Your task to perform on an android device: turn off sleep mode Image 0: 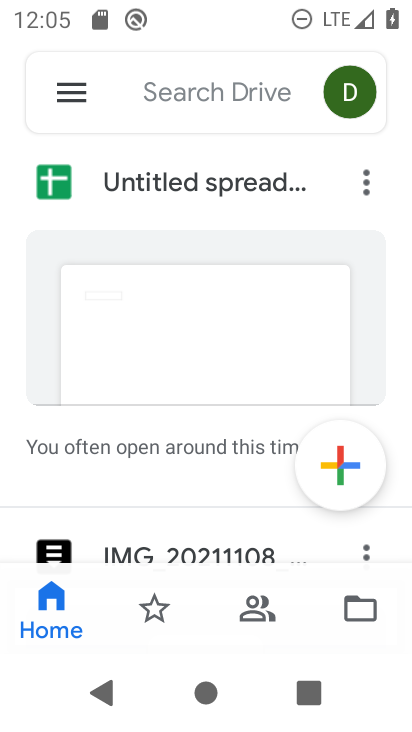
Step 0: press back button
Your task to perform on an android device: turn off sleep mode Image 1: 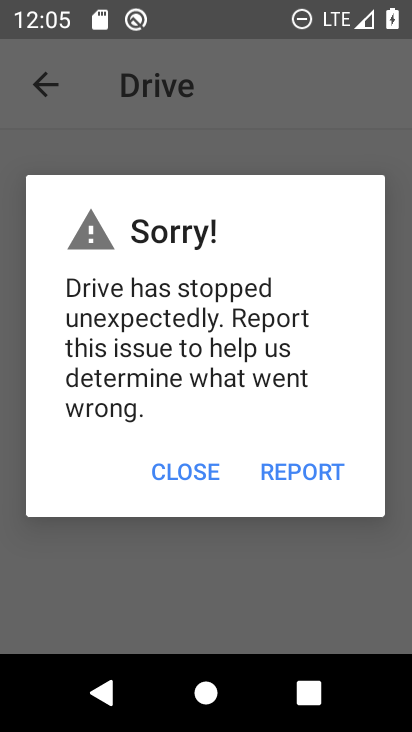
Step 1: press home button
Your task to perform on an android device: turn off sleep mode Image 2: 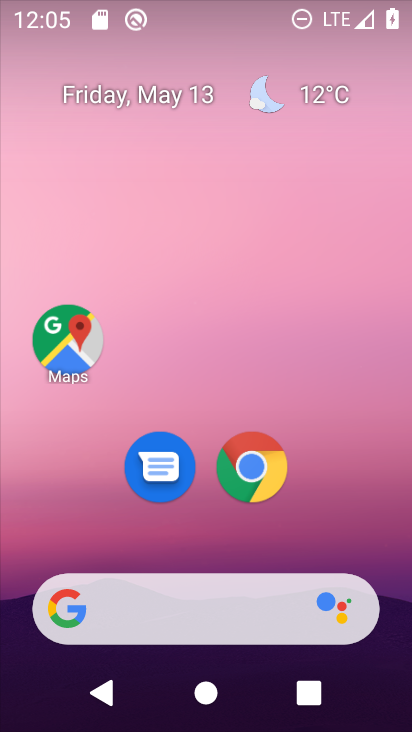
Step 2: drag from (382, 520) to (322, 33)
Your task to perform on an android device: turn off sleep mode Image 3: 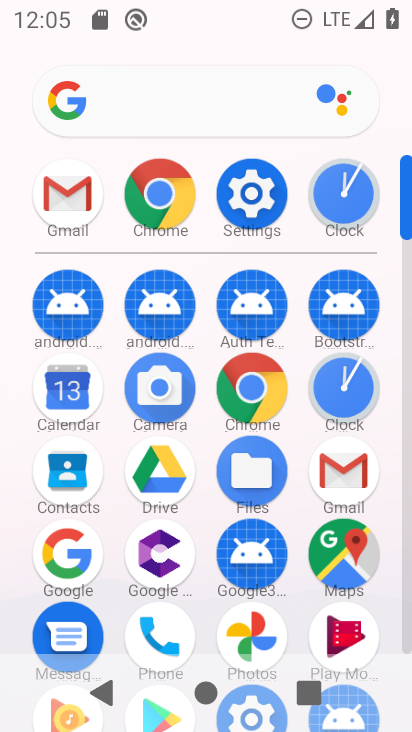
Step 3: click (251, 185)
Your task to perform on an android device: turn off sleep mode Image 4: 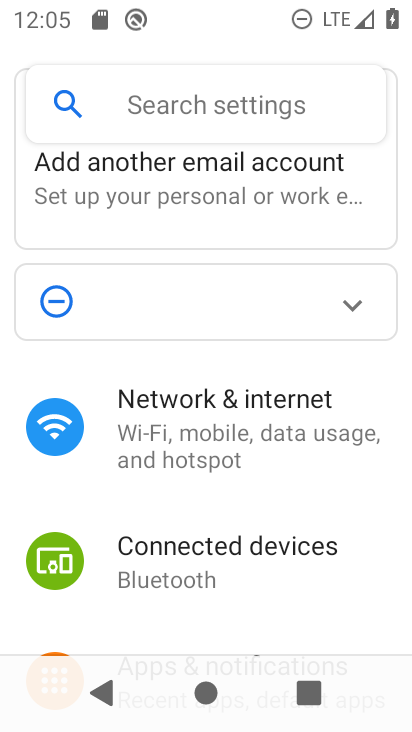
Step 4: drag from (231, 507) to (253, 136)
Your task to perform on an android device: turn off sleep mode Image 5: 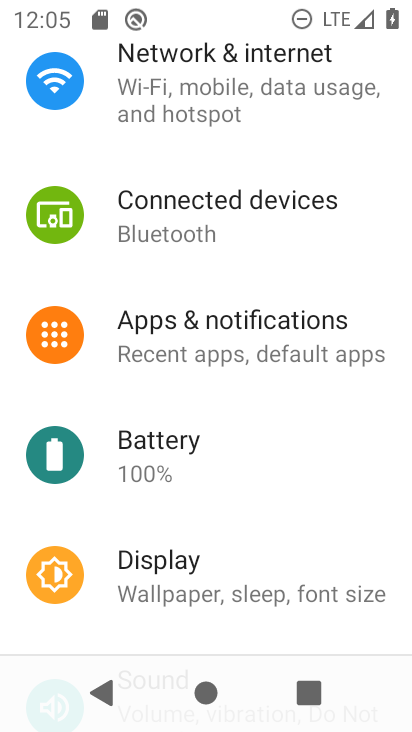
Step 5: drag from (241, 529) to (243, 181)
Your task to perform on an android device: turn off sleep mode Image 6: 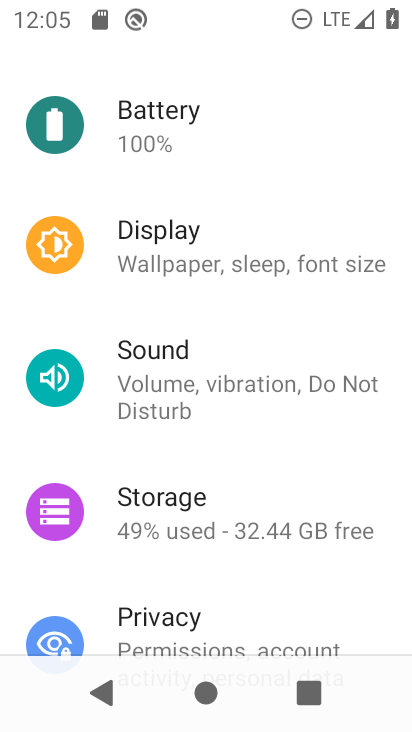
Step 6: drag from (248, 506) to (259, 177)
Your task to perform on an android device: turn off sleep mode Image 7: 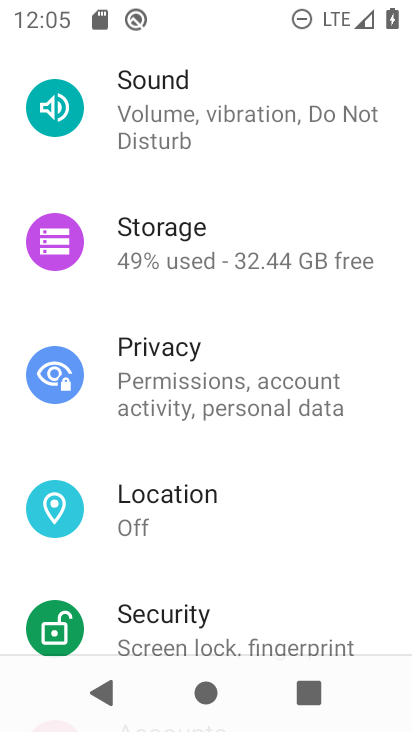
Step 7: drag from (259, 190) to (281, 489)
Your task to perform on an android device: turn off sleep mode Image 8: 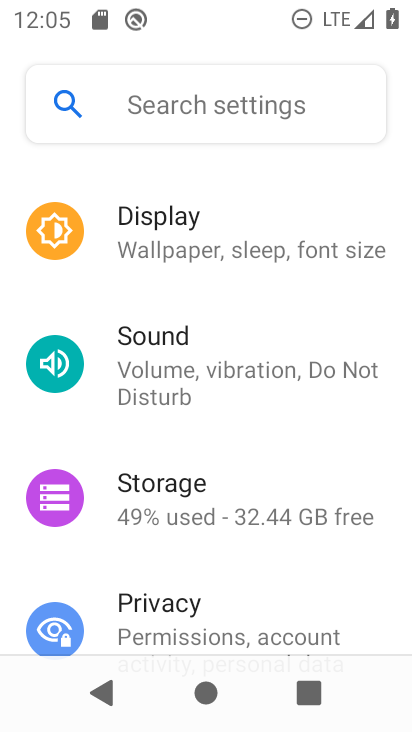
Step 8: click (243, 359)
Your task to perform on an android device: turn off sleep mode Image 9: 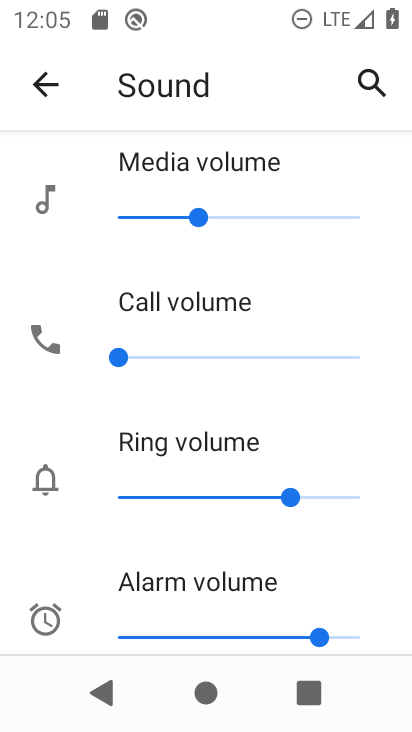
Step 9: click (67, 95)
Your task to perform on an android device: turn off sleep mode Image 10: 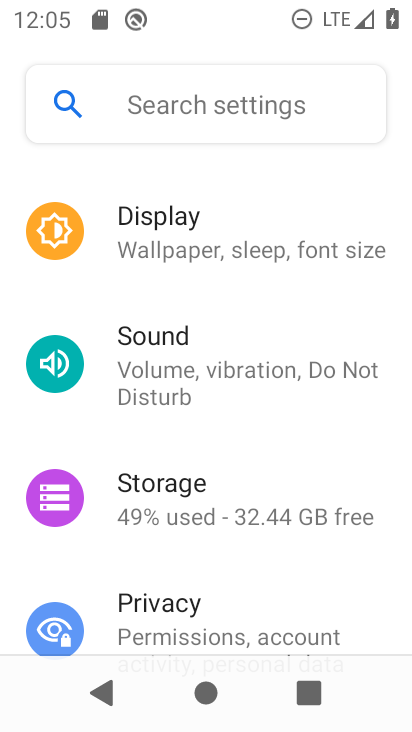
Step 10: click (263, 220)
Your task to perform on an android device: turn off sleep mode Image 11: 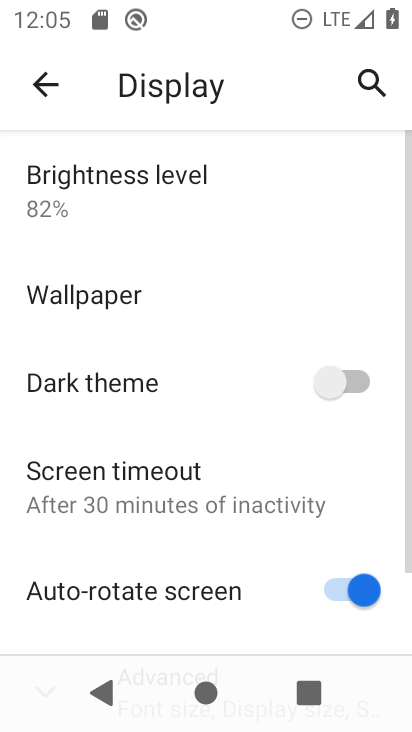
Step 11: drag from (203, 527) to (257, 147)
Your task to perform on an android device: turn off sleep mode Image 12: 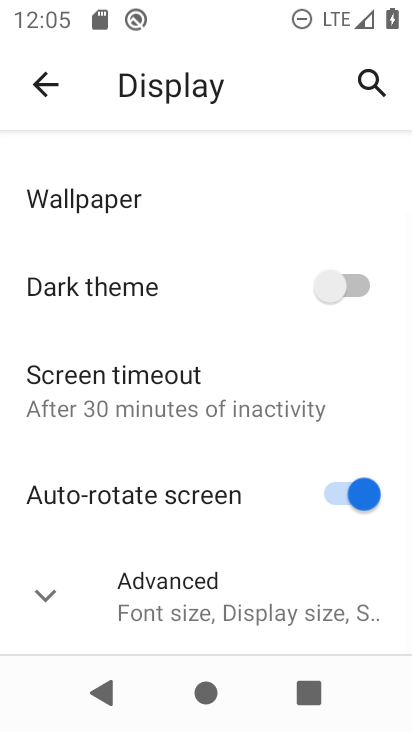
Step 12: drag from (206, 539) to (196, 186)
Your task to perform on an android device: turn off sleep mode Image 13: 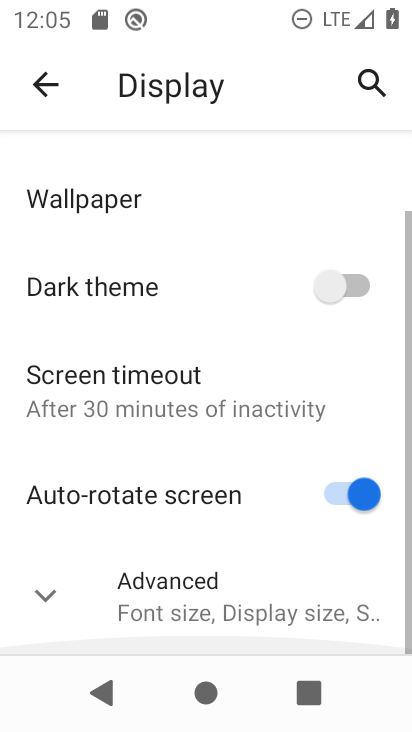
Step 13: click (39, 581)
Your task to perform on an android device: turn off sleep mode Image 14: 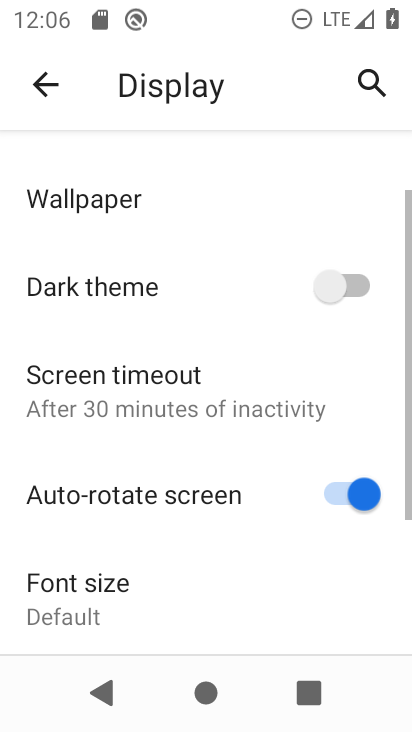
Step 14: drag from (165, 554) to (177, 161)
Your task to perform on an android device: turn off sleep mode Image 15: 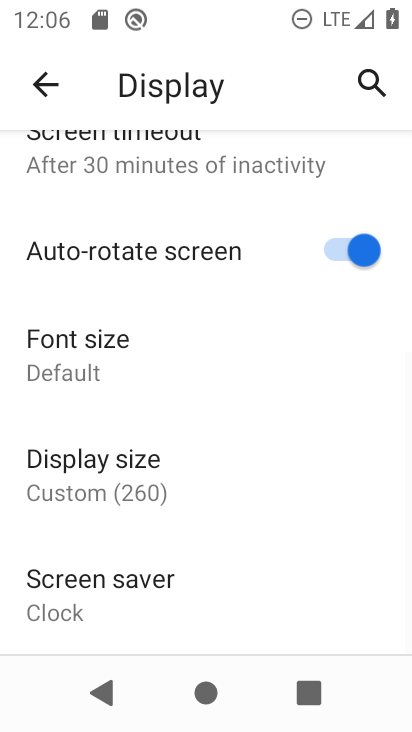
Step 15: drag from (205, 573) to (224, 224)
Your task to perform on an android device: turn off sleep mode Image 16: 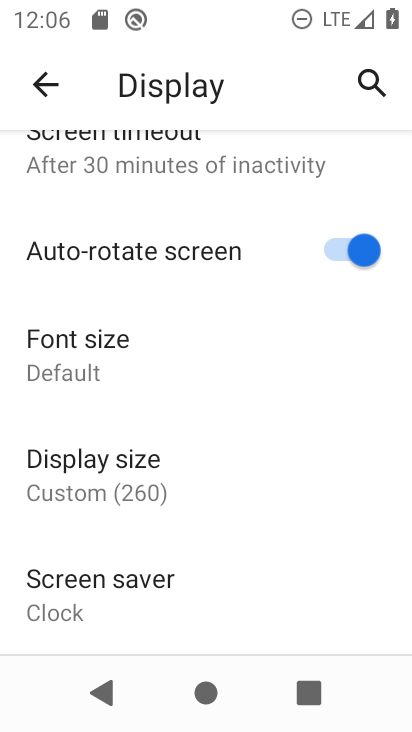
Step 16: drag from (213, 286) to (230, 599)
Your task to perform on an android device: turn off sleep mode Image 17: 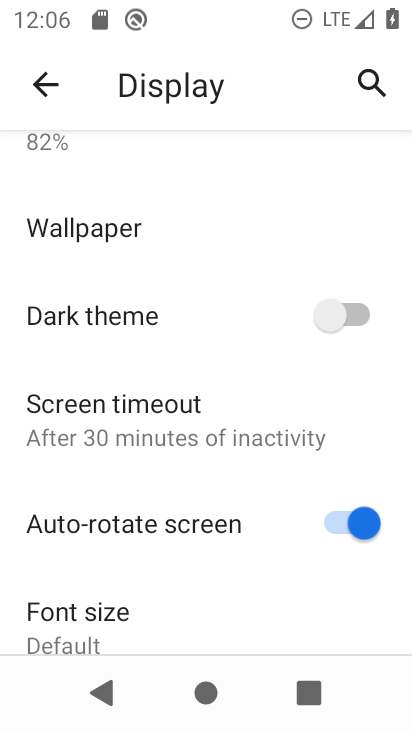
Step 17: drag from (204, 213) to (244, 627)
Your task to perform on an android device: turn off sleep mode Image 18: 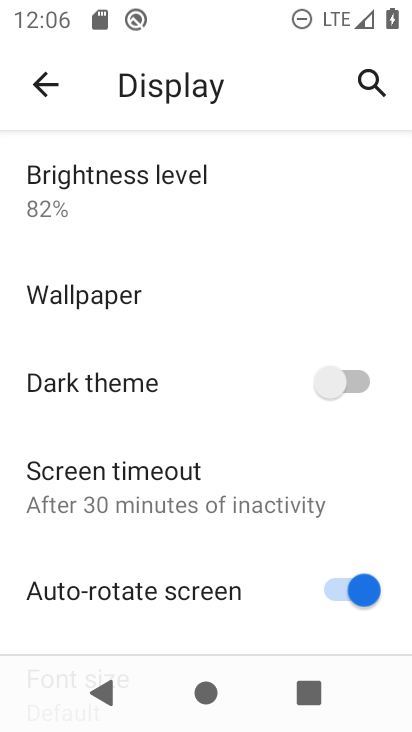
Step 18: drag from (191, 537) to (216, 105)
Your task to perform on an android device: turn off sleep mode Image 19: 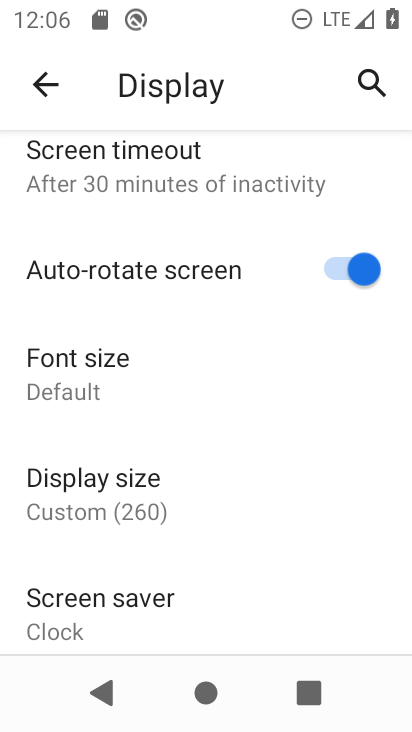
Step 19: drag from (211, 584) to (208, 125)
Your task to perform on an android device: turn off sleep mode Image 20: 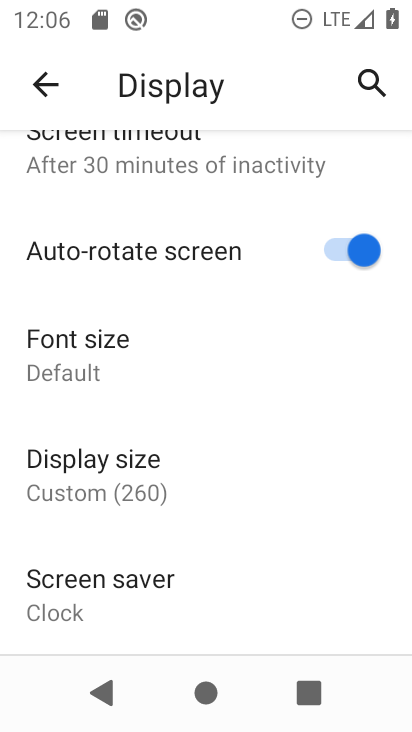
Step 20: click (49, 81)
Your task to perform on an android device: turn off sleep mode Image 21: 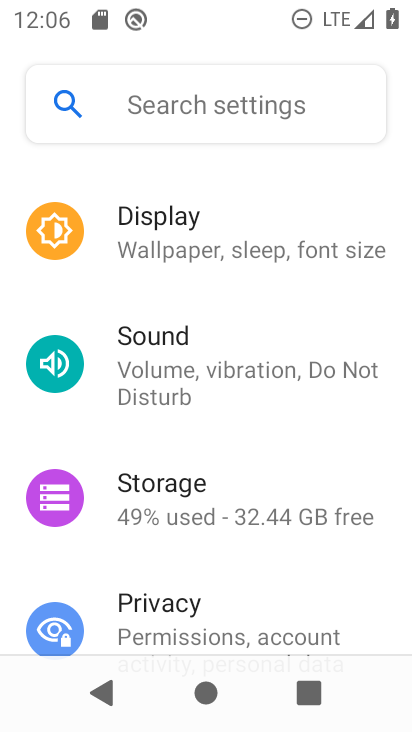
Step 21: click (258, 236)
Your task to perform on an android device: turn off sleep mode Image 22: 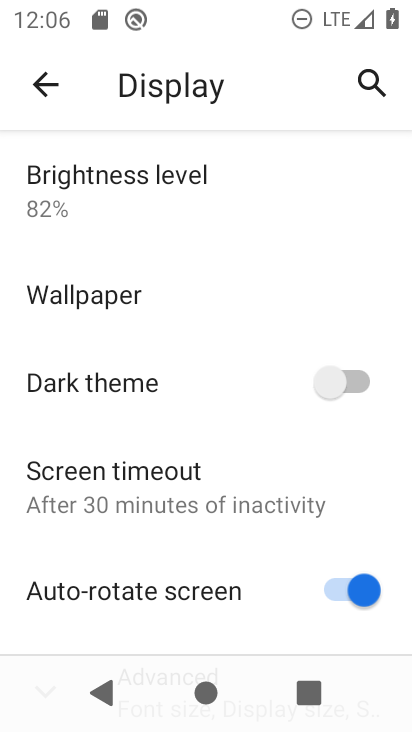
Step 22: drag from (183, 449) to (211, 114)
Your task to perform on an android device: turn off sleep mode Image 23: 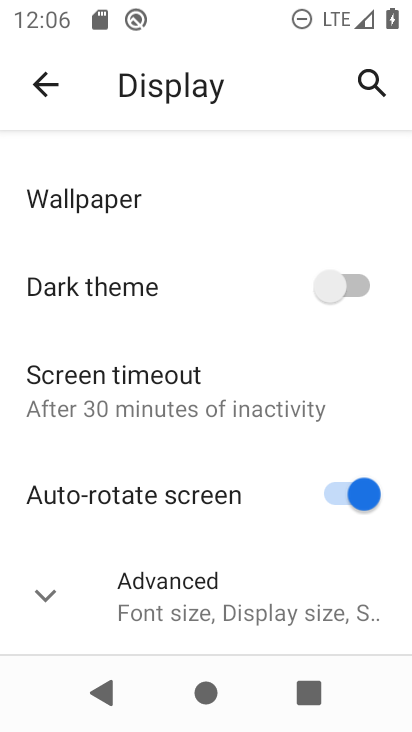
Step 23: click (29, 597)
Your task to perform on an android device: turn off sleep mode Image 24: 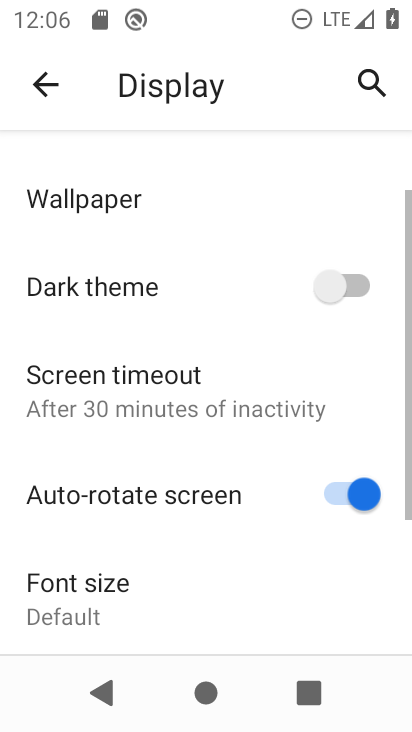
Step 24: task complete